Your task to perform on an android device: install app "Flipkart Online Shopping App" Image 0: 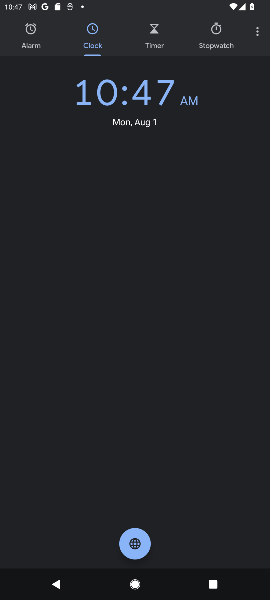
Step 0: press home button
Your task to perform on an android device: install app "Flipkart Online Shopping App" Image 1: 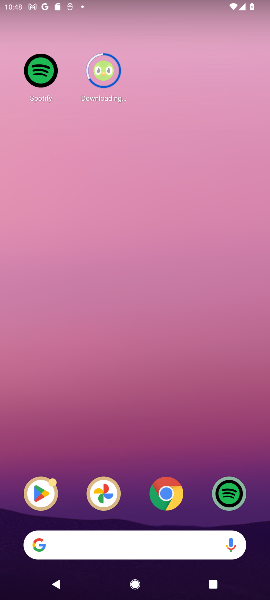
Step 1: click (30, 496)
Your task to perform on an android device: install app "Flipkart Online Shopping App" Image 2: 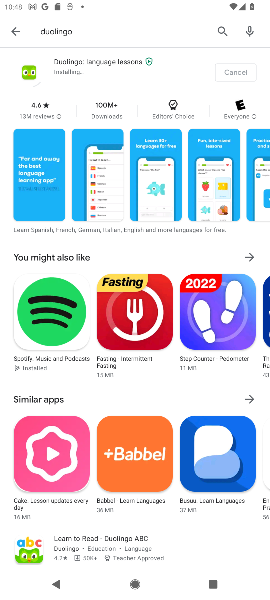
Step 2: click (225, 28)
Your task to perform on an android device: install app "Flipkart Online Shopping App" Image 3: 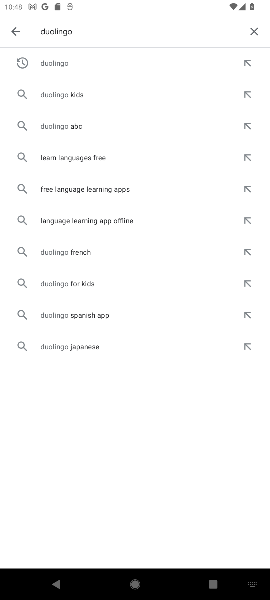
Step 3: click (251, 28)
Your task to perform on an android device: install app "Flipkart Online Shopping App" Image 4: 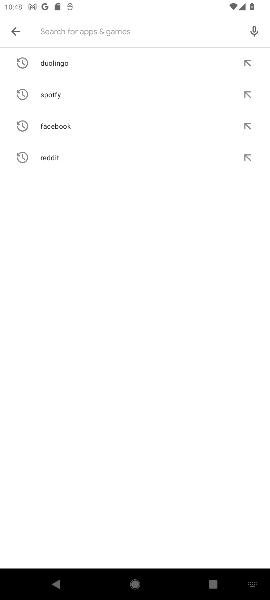
Step 4: type "flipkart"
Your task to perform on an android device: install app "Flipkart Online Shopping App" Image 5: 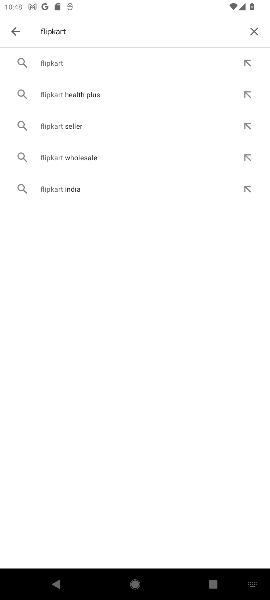
Step 5: click (115, 66)
Your task to perform on an android device: install app "Flipkart Online Shopping App" Image 6: 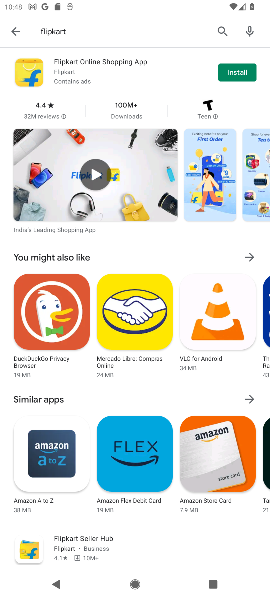
Step 6: click (223, 64)
Your task to perform on an android device: install app "Flipkart Online Shopping App" Image 7: 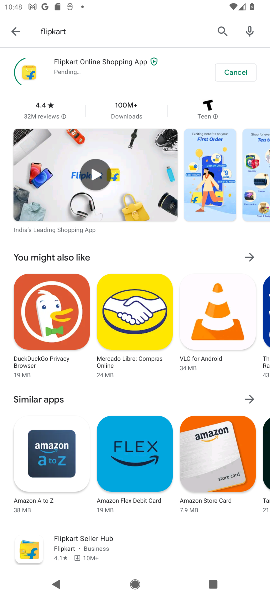
Step 7: task complete